Your task to perform on an android device: delete a single message in the gmail app Image 0: 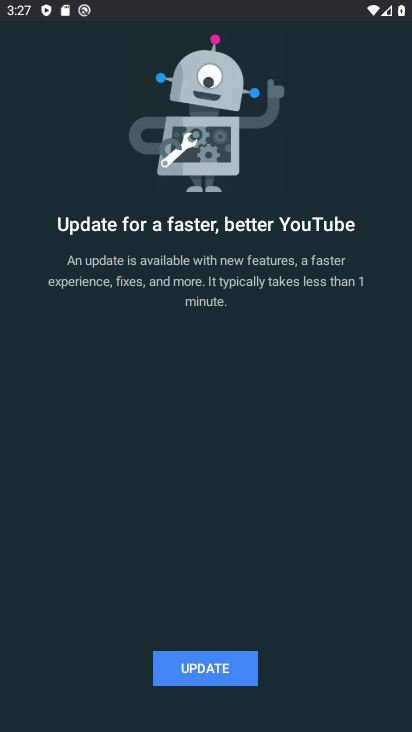
Step 0: press back button
Your task to perform on an android device: delete a single message in the gmail app Image 1: 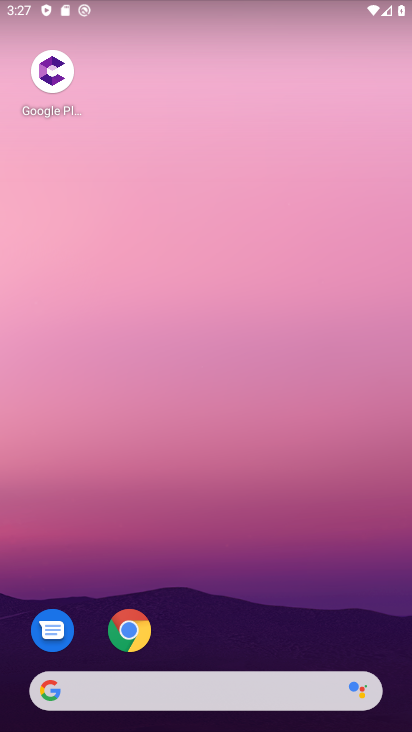
Step 1: drag from (325, 585) to (186, 0)
Your task to perform on an android device: delete a single message in the gmail app Image 2: 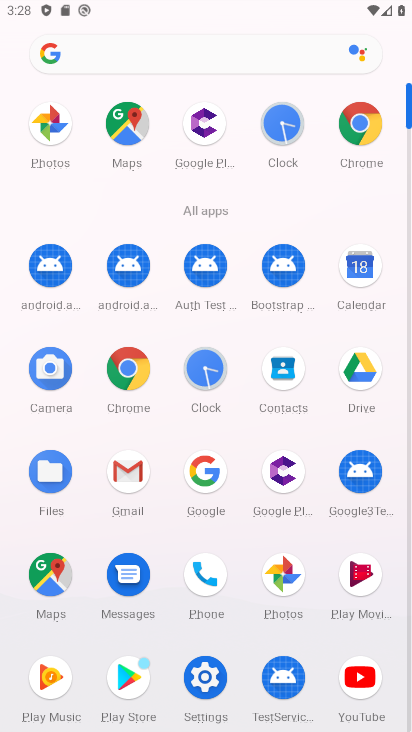
Step 2: click (132, 467)
Your task to perform on an android device: delete a single message in the gmail app Image 3: 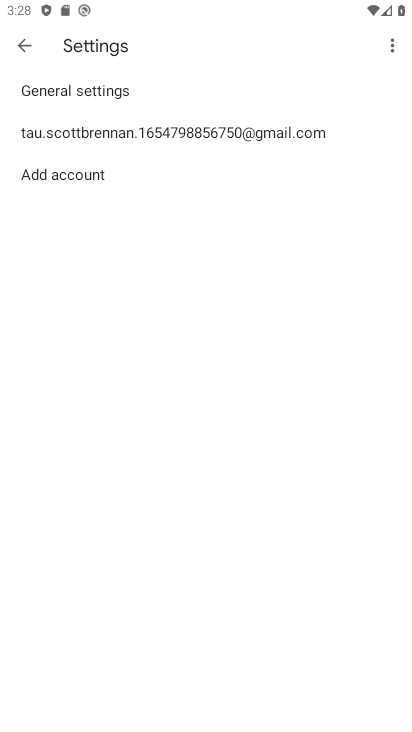
Step 3: click (20, 48)
Your task to perform on an android device: delete a single message in the gmail app Image 4: 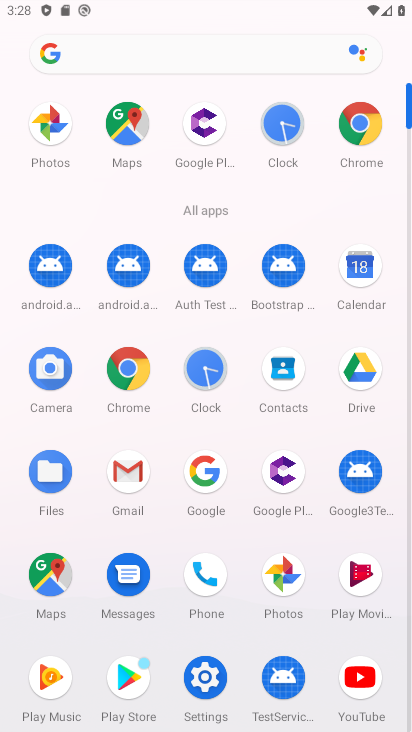
Step 4: click (122, 468)
Your task to perform on an android device: delete a single message in the gmail app Image 5: 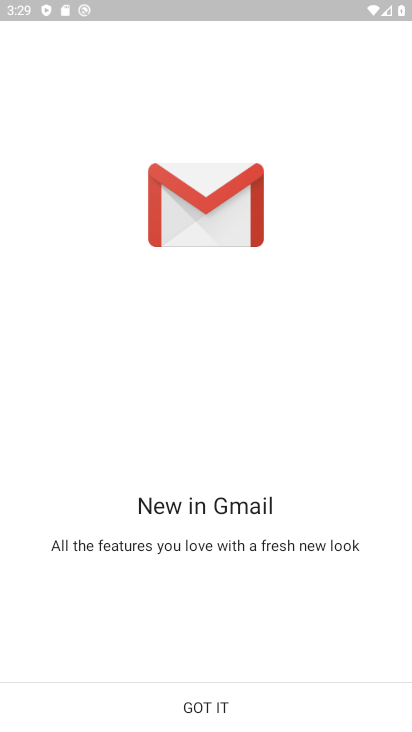
Step 5: click (247, 693)
Your task to perform on an android device: delete a single message in the gmail app Image 6: 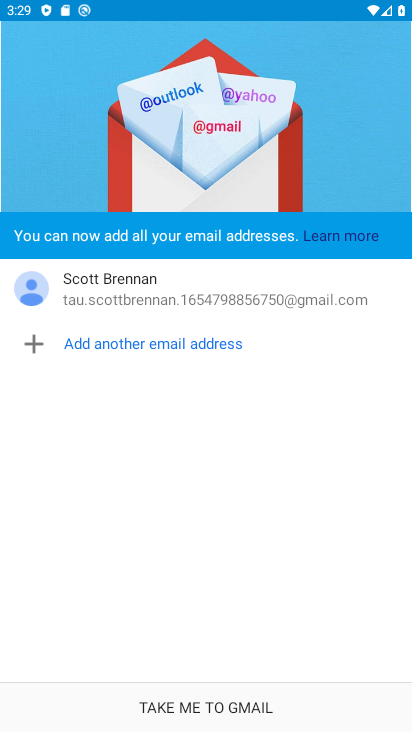
Step 6: click (247, 693)
Your task to perform on an android device: delete a single message in the gmail app Image 7: 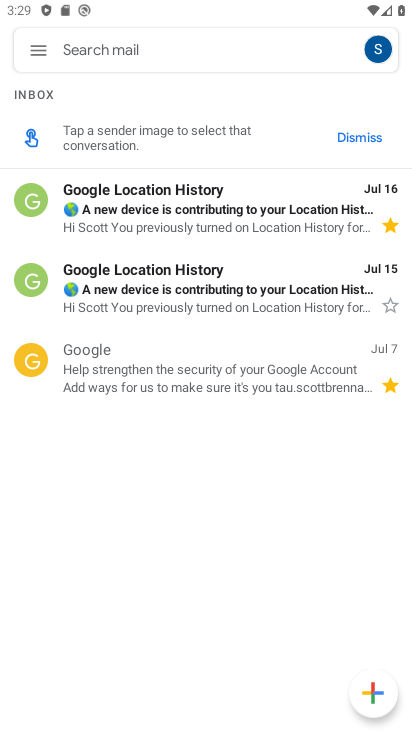
Step 7: click (223, 359)
Your task to perform on an android device: delete a single message in the gmail app Image 8: 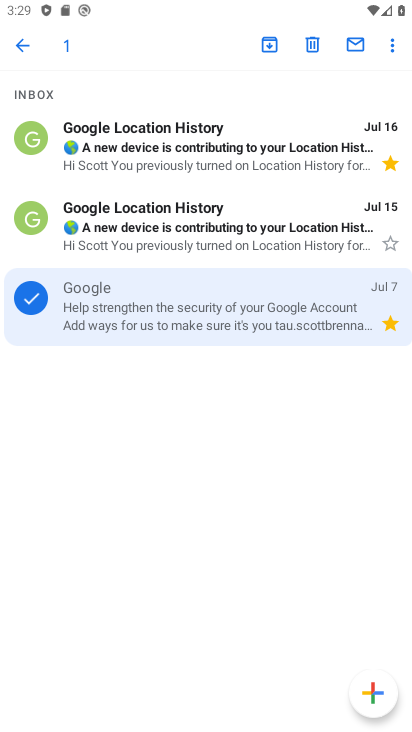
Step 8: click (318, 43)
Your task to perform on an android device: delete a single message in the gmail app Image 9: 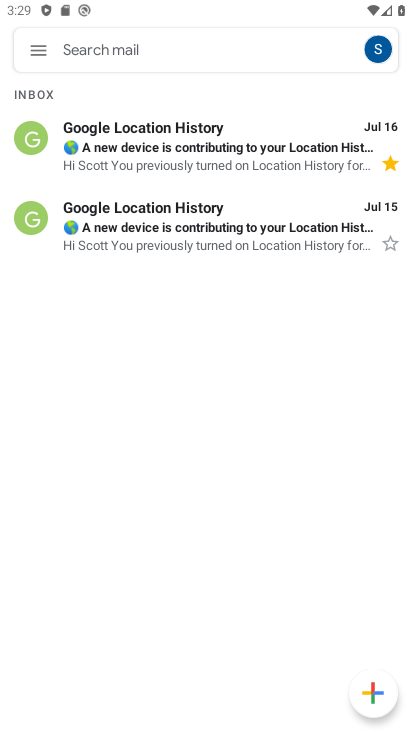
Step 9: task complete